Your task to perform on an android device: Open Maps and search for coffee Image 0: 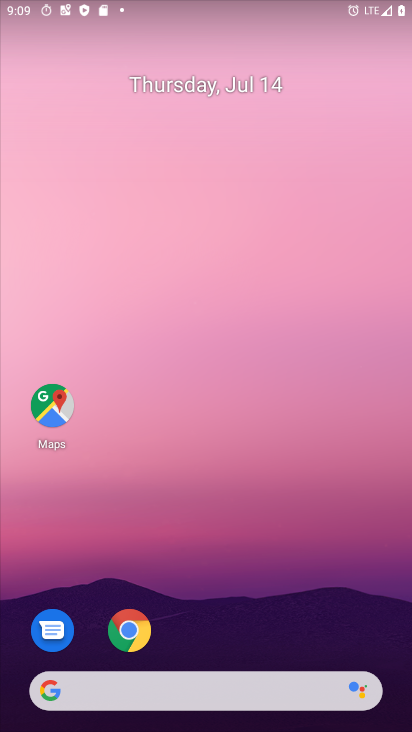
Step 0: drag from (192, 725) to (198, 105)
Your task to perform on an android device: Open Maps and search for coffee Image 1: 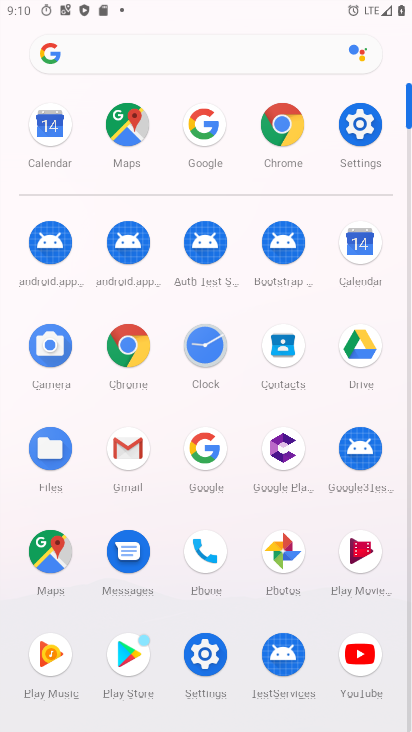
Step 1: click (46, 547)
Your task to perform on an android device: Open Maps and search for coffee Image 2: 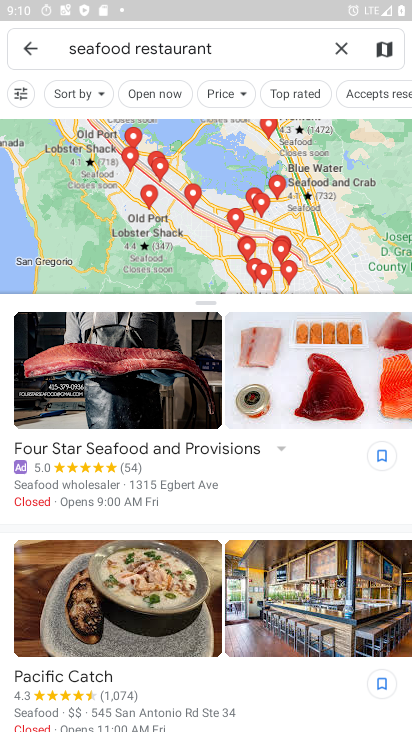
Step 2: click (337, 47)
Your task to perform on an android device: Open Maps and search for coffee Image 3: 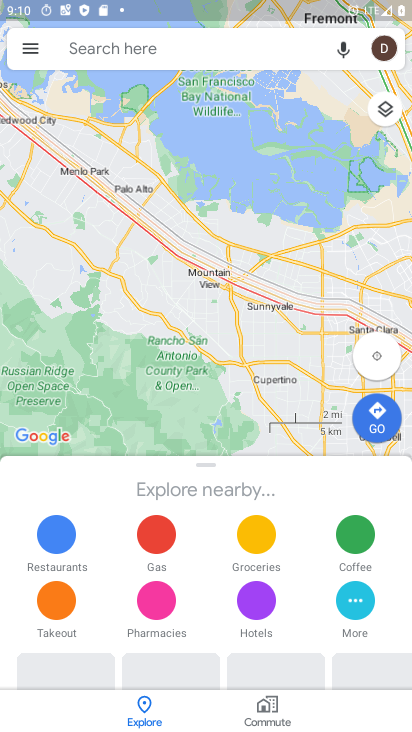
Step 3: click (213, 45)
Your task to perform on an android device: Open Maps and search for coffee Image 4: 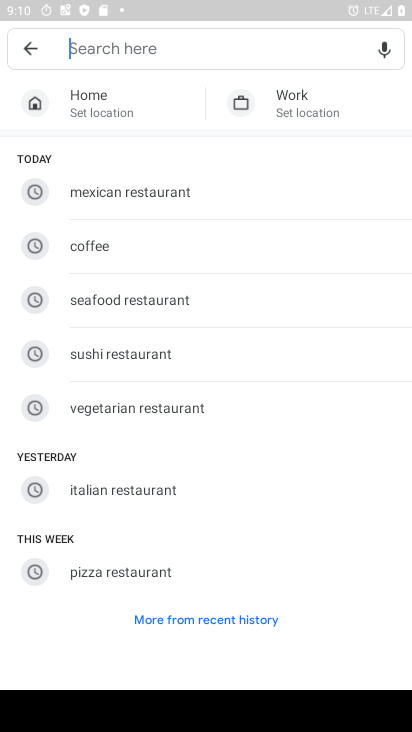
Step 4: type "coffee"
Your task to perform on an android device: Open Maps and search for coffee Image 5: 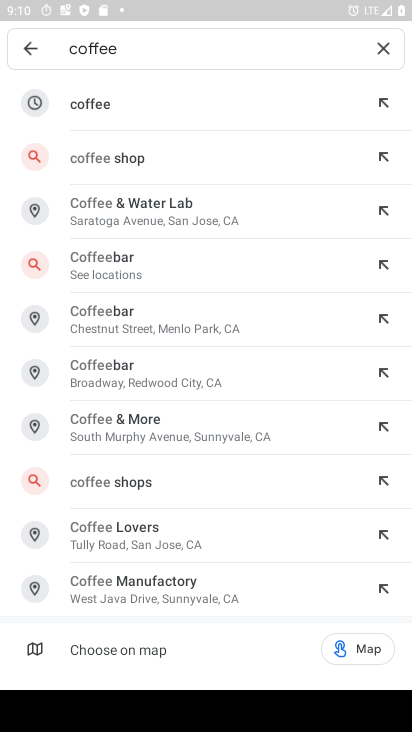
Step 5: click (87, 105)
Your task to perform on an android device: Open Maps and search for coffee Image 6: 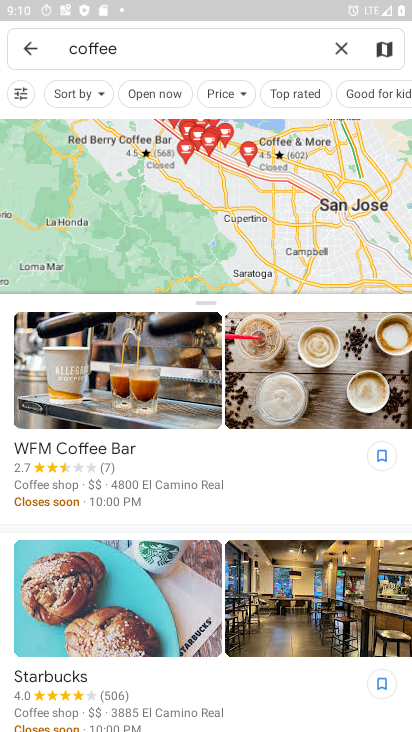
Step 6: task complete